Your task to perform on an android device: Search for a new bronzer Image 0: 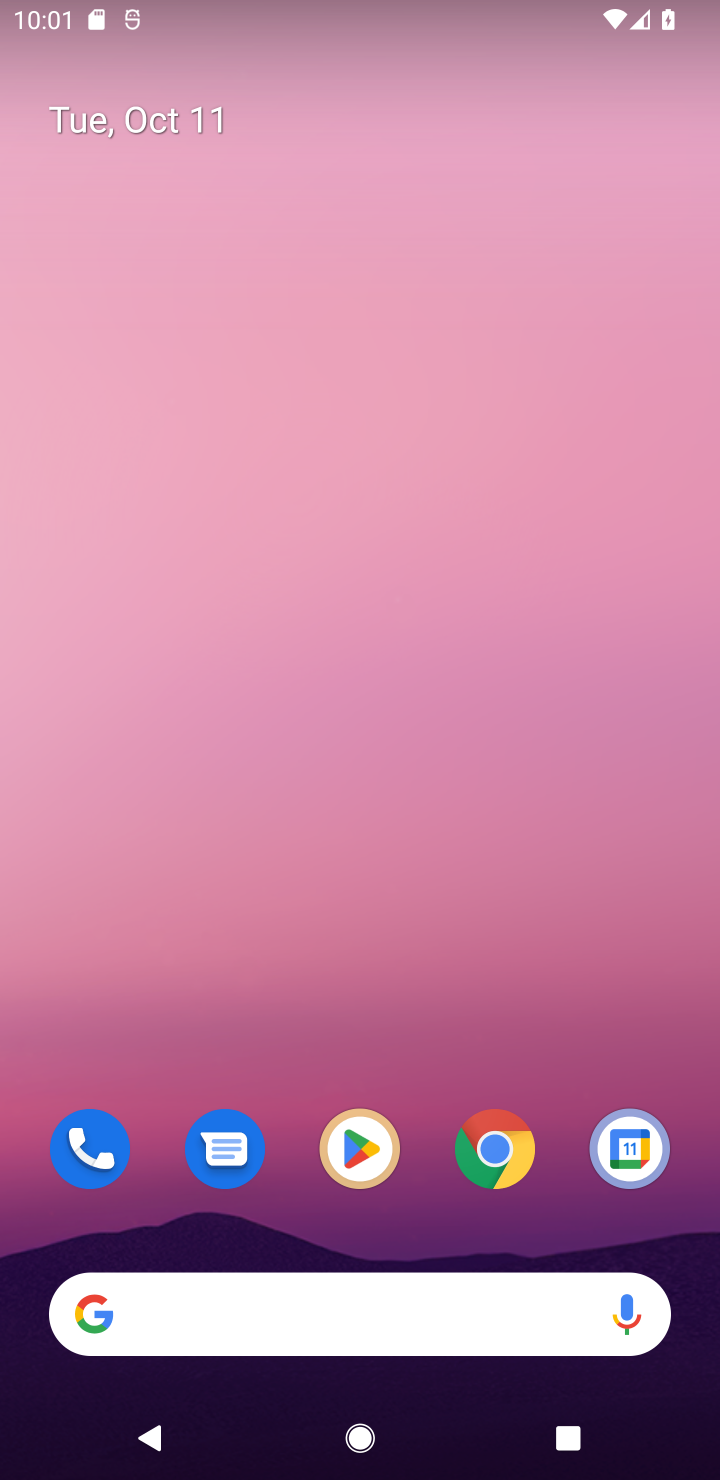
Step 0: click (302, 1304)
Your task to perform on an android device: Search for a new bronzer Image 1: 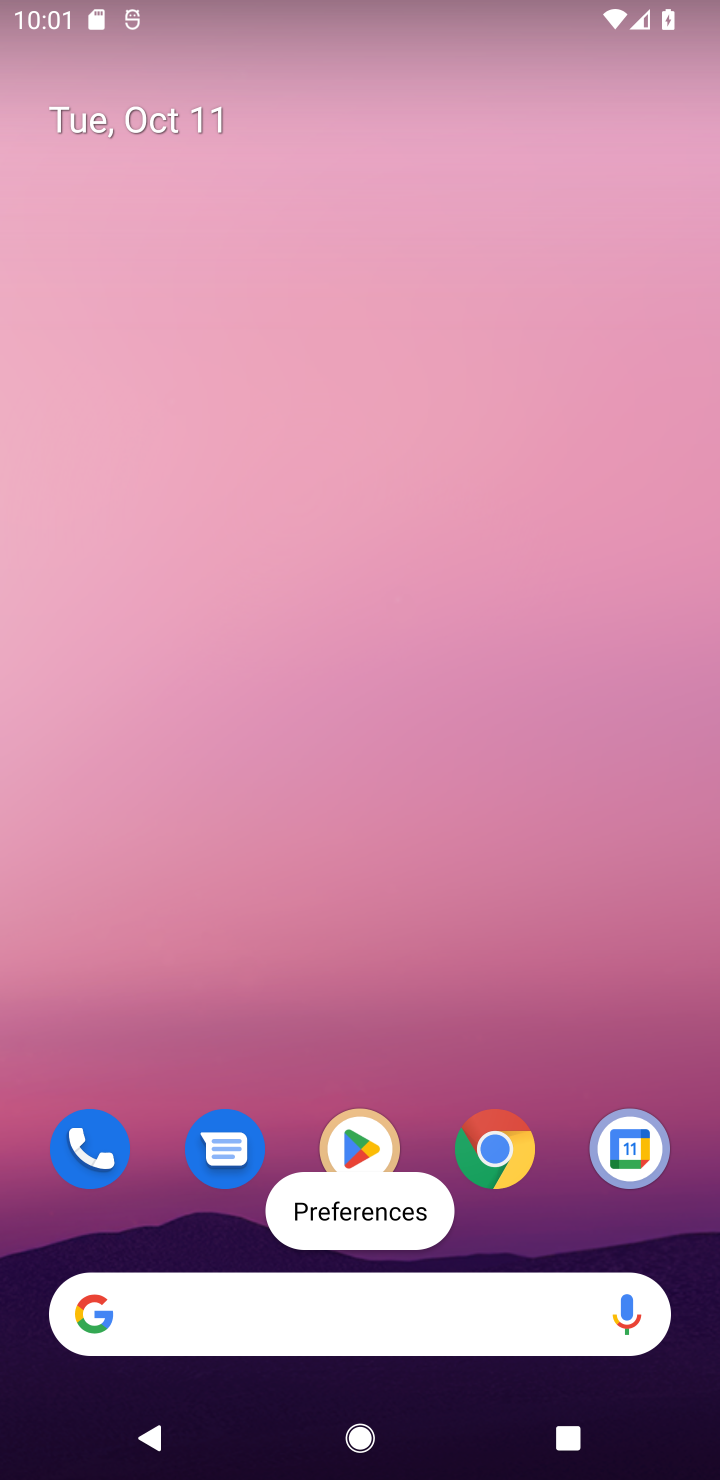
Step 1: click (283, 1323)
Your task to perform on an android device: Search for a new bronzer Image 2: 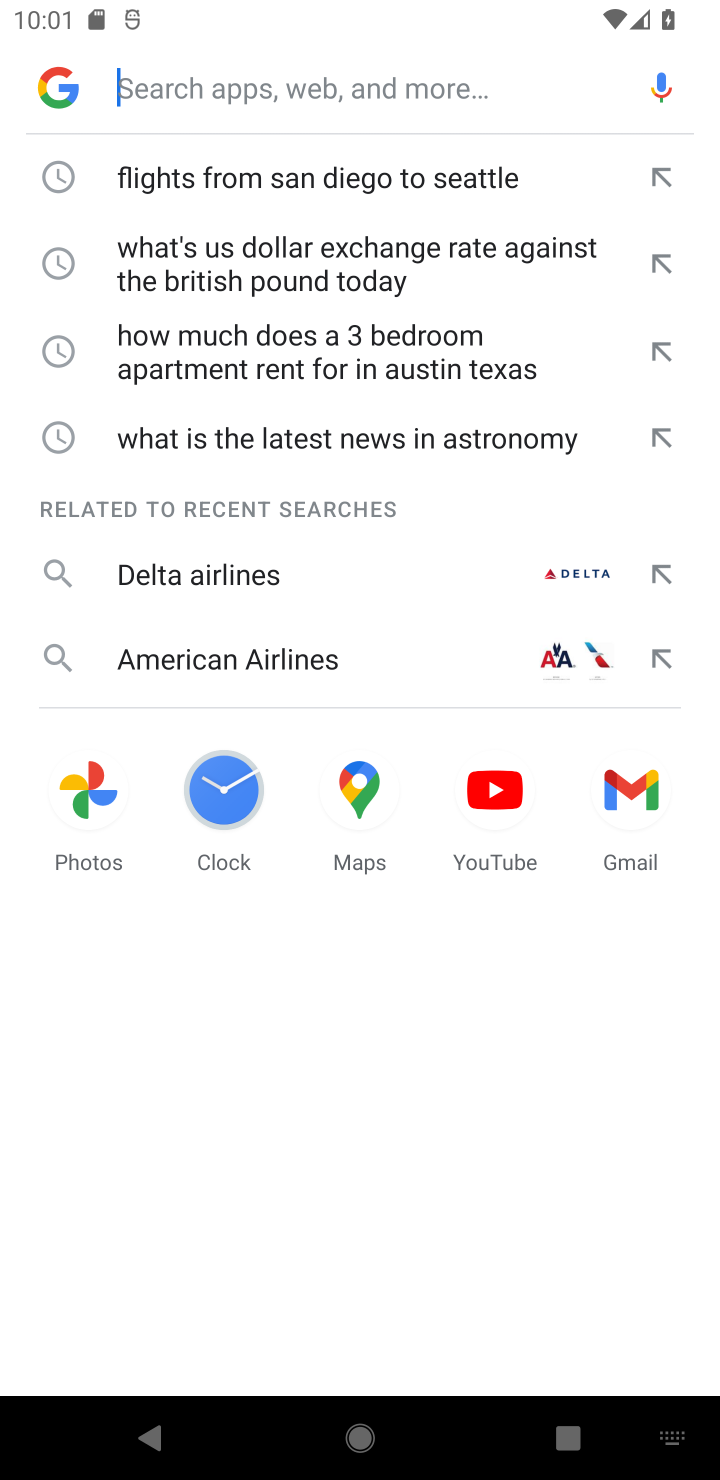
Step 2: type "Search for a new bronzer"
Your task to perform on an android device: Search for a new bronzer Image 3: 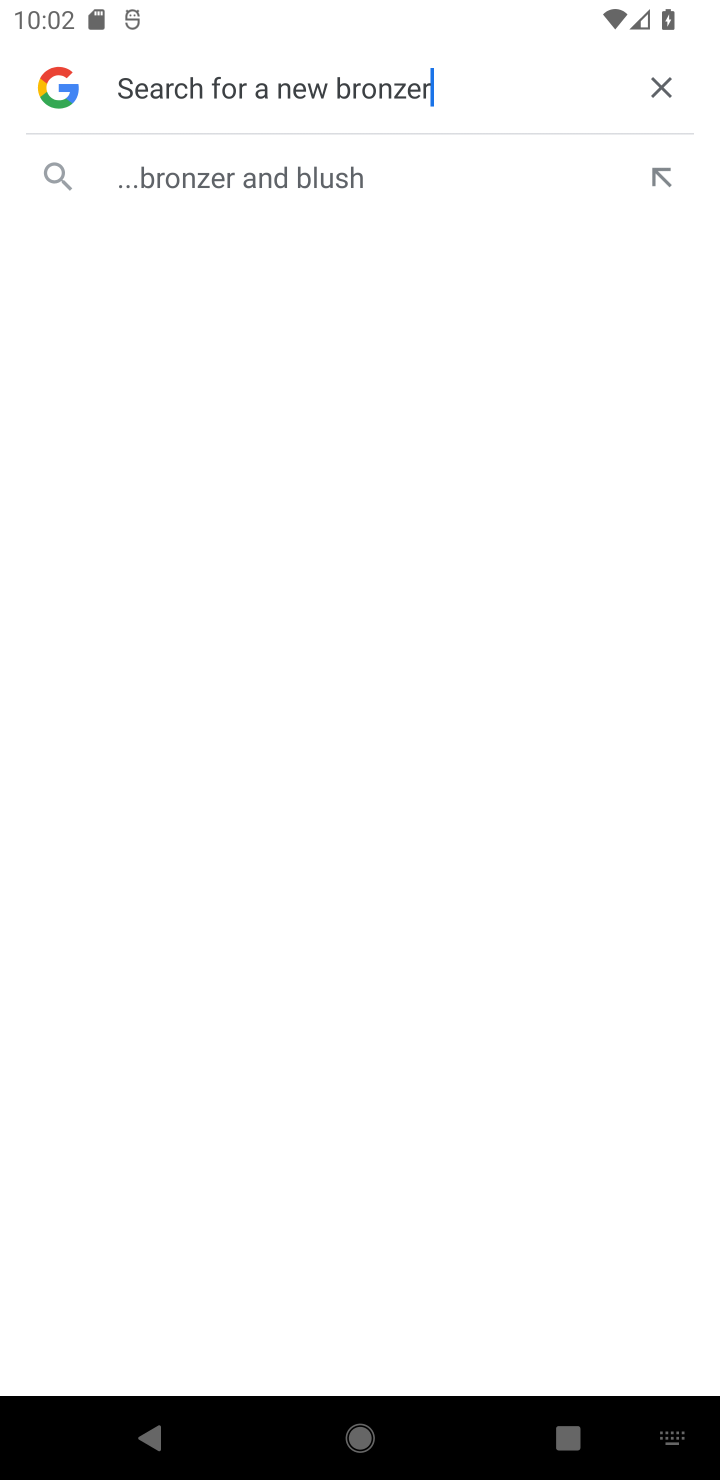
Step 3: click (295, 181)
Your task to perform on an android device: Search for a new bronzer Image 4: 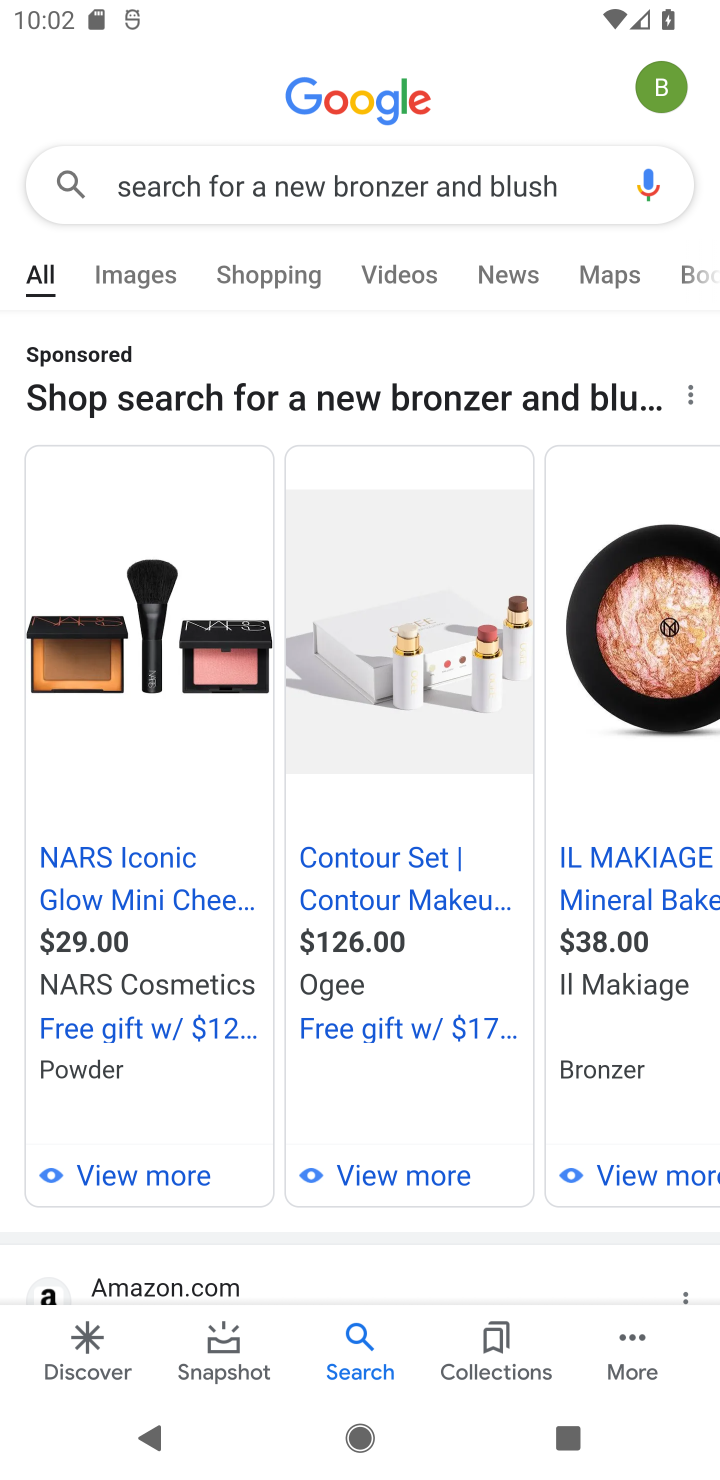
Step 4: click (308, 1089)
Your task to perform on an android device: Search for a new bronzer Image 5: 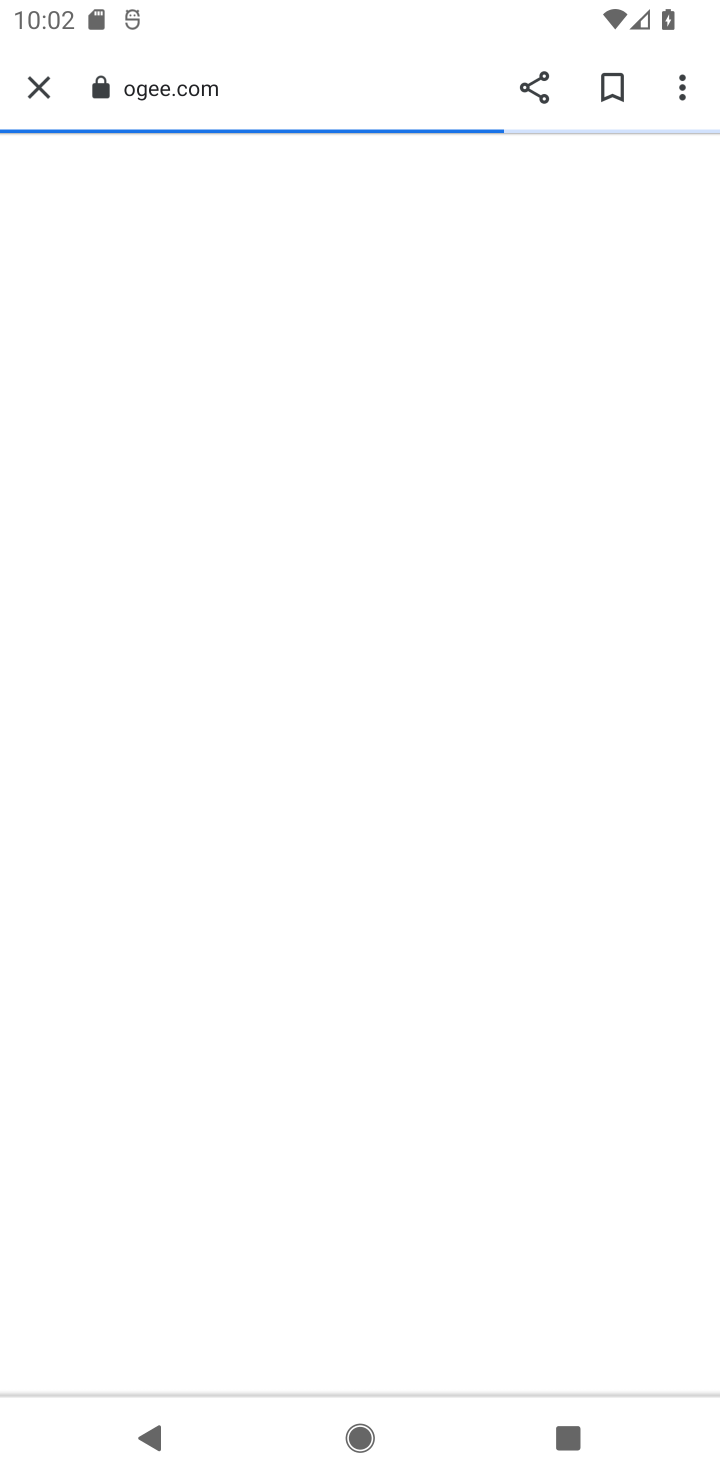
Step 5: task complete